Your task to perform on an android device: change the clock display to show seconds Image 0: 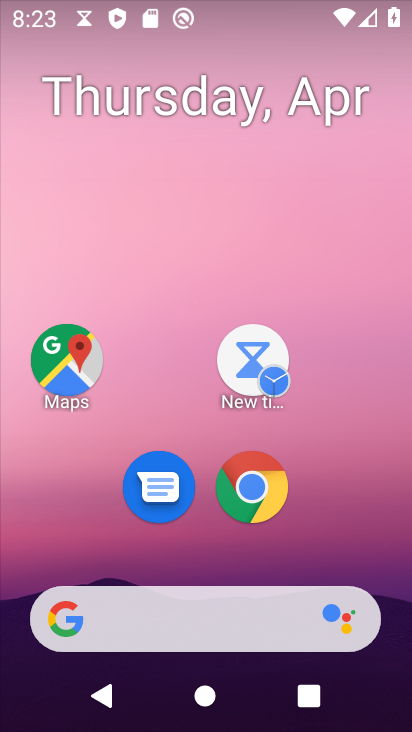
Step 0: drag from (338, 527) to (297, 84)
Your task to perform on an android device: change the clock display to show seconds Image 1: 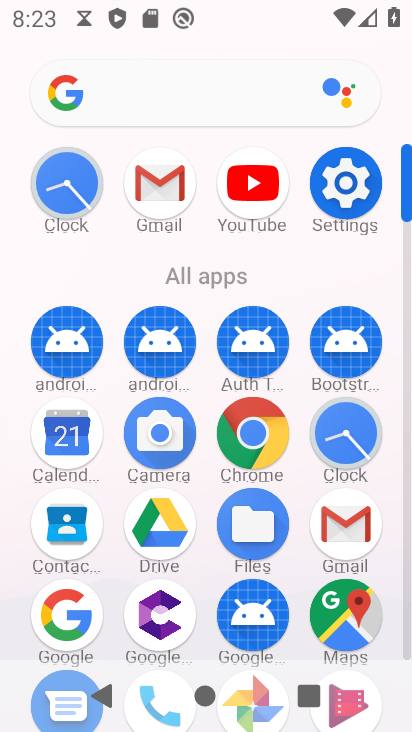
Step 1: click (329, 431)
Your task to perform on an android device: change the clock display to show seconds Image 2: 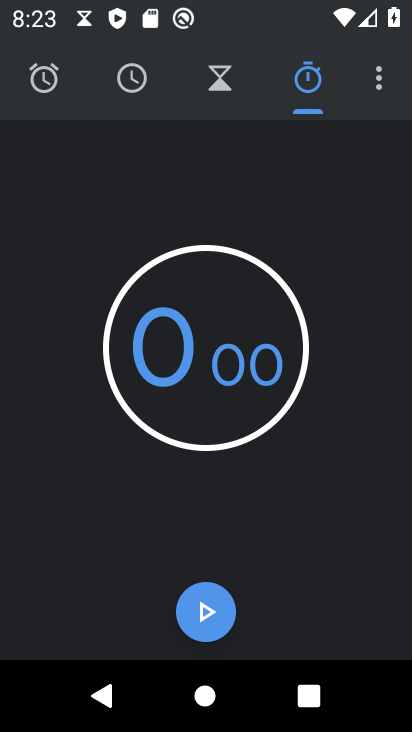
Step 2: click (380, 82)
Your task to perform on an android device: change the clock display to show seconds Image 3: 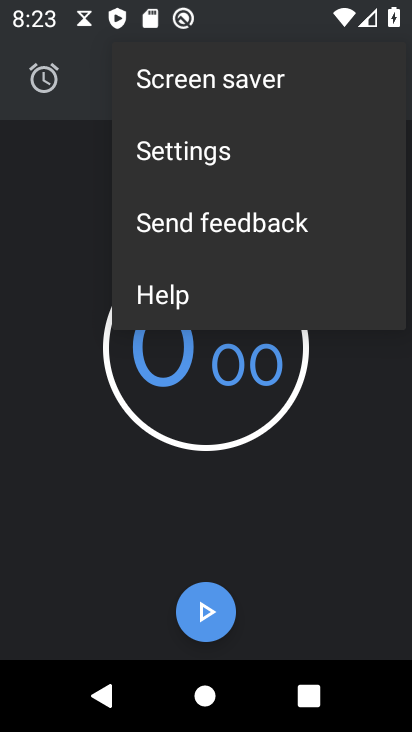
Step 3: click (195, 152)
Your task to perform on an android device: change the clock display to show seconds Image 4: 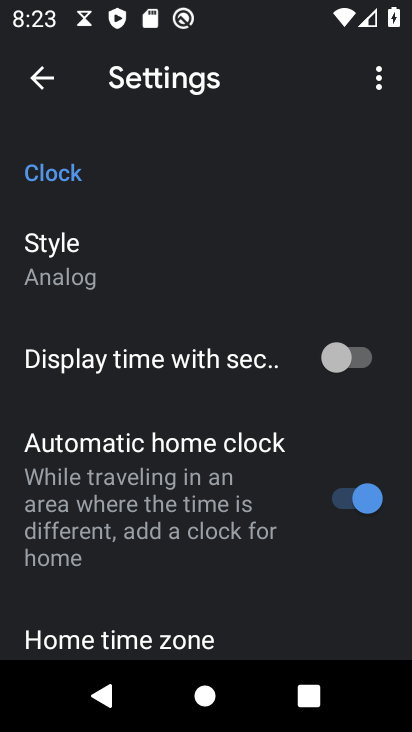
Step 4: click (334, 363)
Your task to perform on an android device: change the clock display to show seconds Image 5: 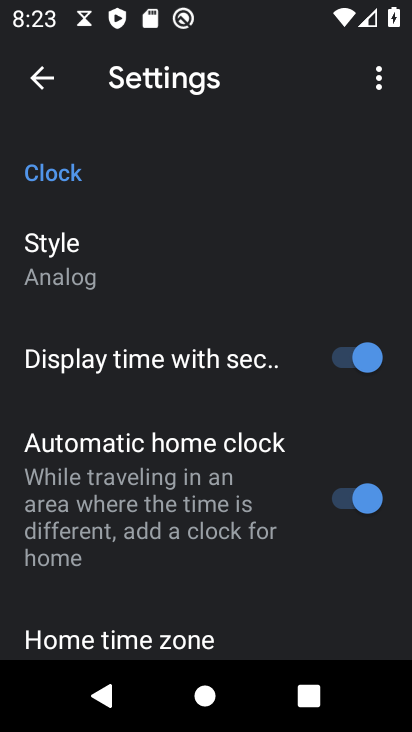
Step 5: task complete